Your task to perform on an android device: turn on wifi Image 0: 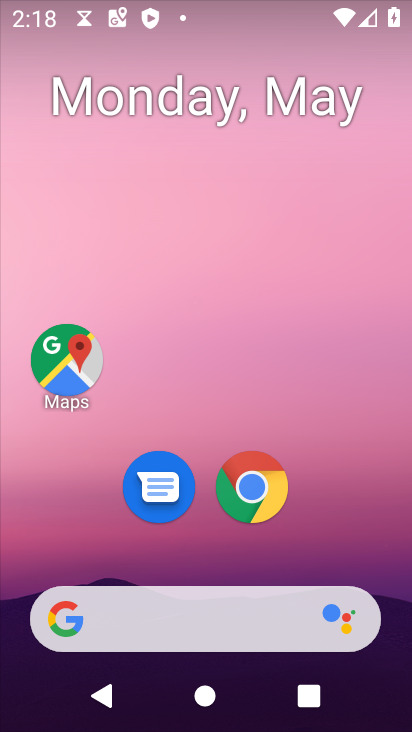
Step 0: drag from (344, 546) to (288, 61)
Your task to perform on an android device: turn on wifi Image 1: 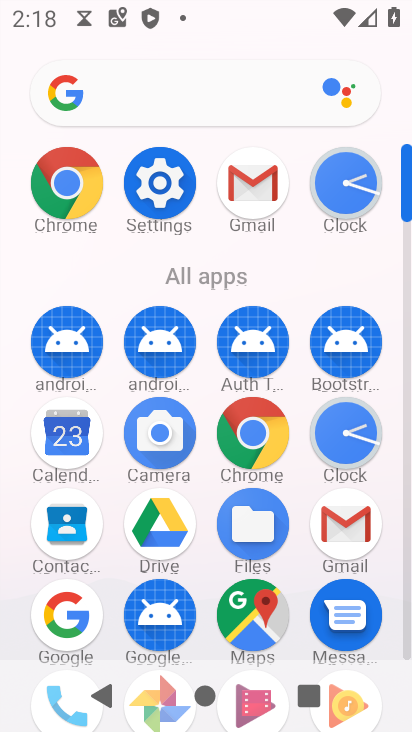
Step 1: click (166, 174)
Your task to perform on an android device: turn on wifi Image 2: 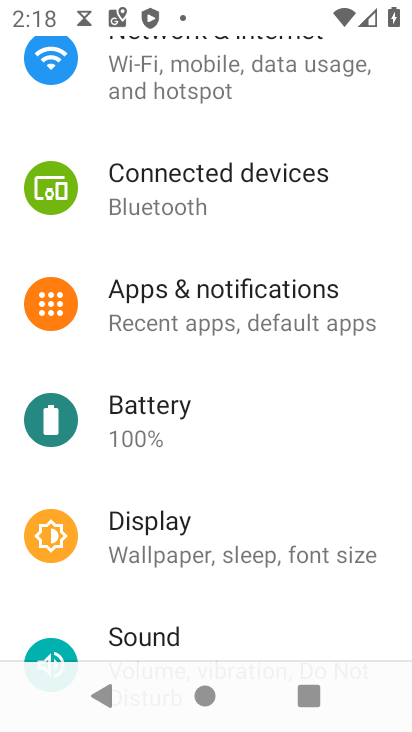
Step 2: click (215, 83)
Your task to perform on an android device: turn on wifi Image 3: 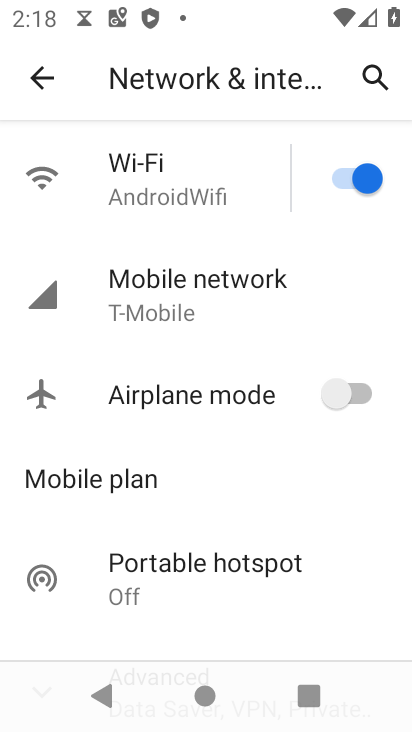
Step 3: task complete